Your task to perform on an android device: Open the calendar and show me this week's events? Image 0: 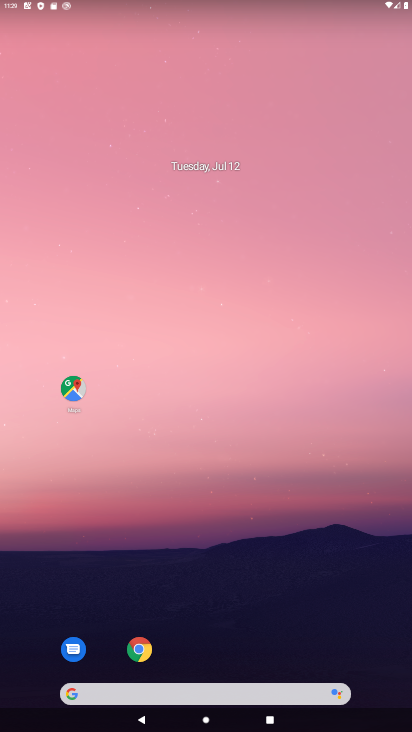
Step 0: drag from (347, 643) to (340, 196)
Your task to perform on an android device: Open the calendar and show me this week's events? Image 1: 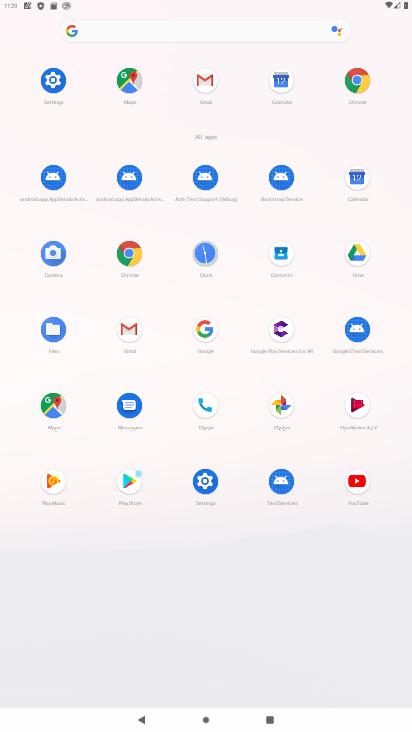
Step 1: click (350, 189)
Your task to perform on an android device: Open the calendar and show me this week's events? Image 2: 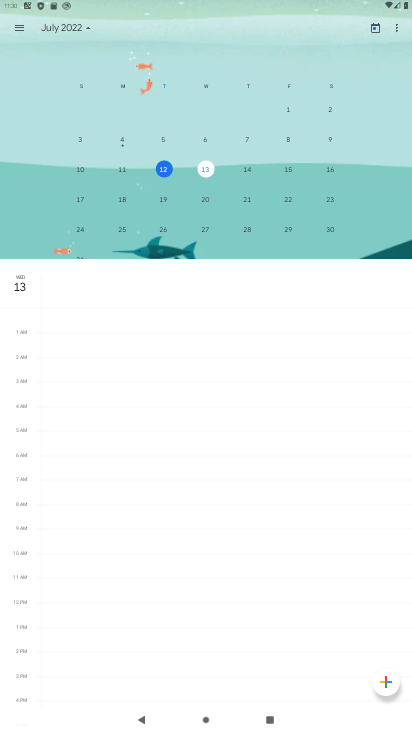
Step 2: click (226, 196)
Your task to perform on an android device: Open the calendar and show me this week's events? Image 3: 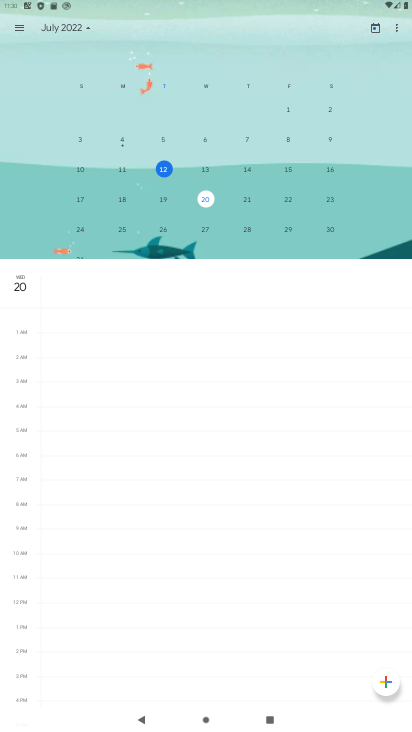
Step 3: task complete